Your task to perform on an android device: View the shopping cart on target. Image 0: 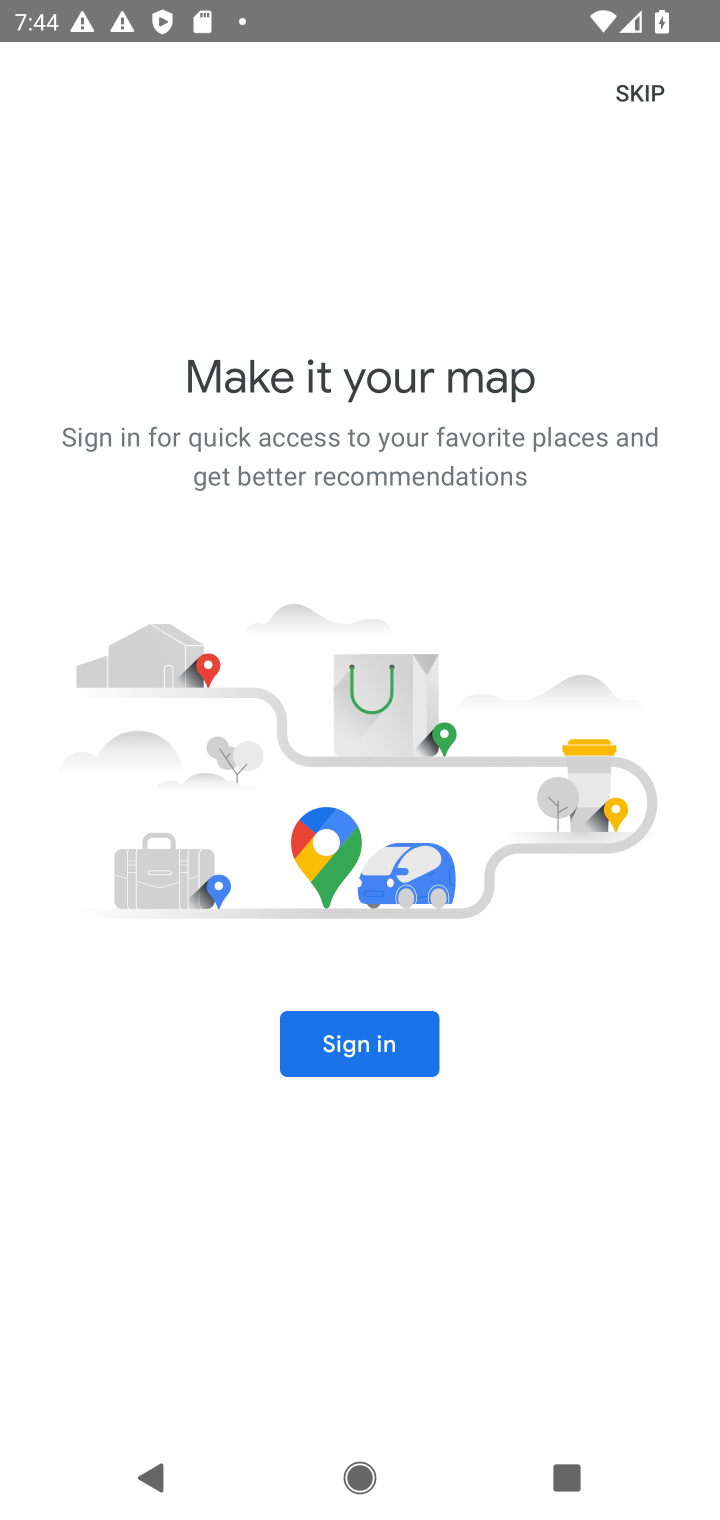
Step 0: press home button
Your task to perform on an android device: View the shopping cart on target. Image 1: 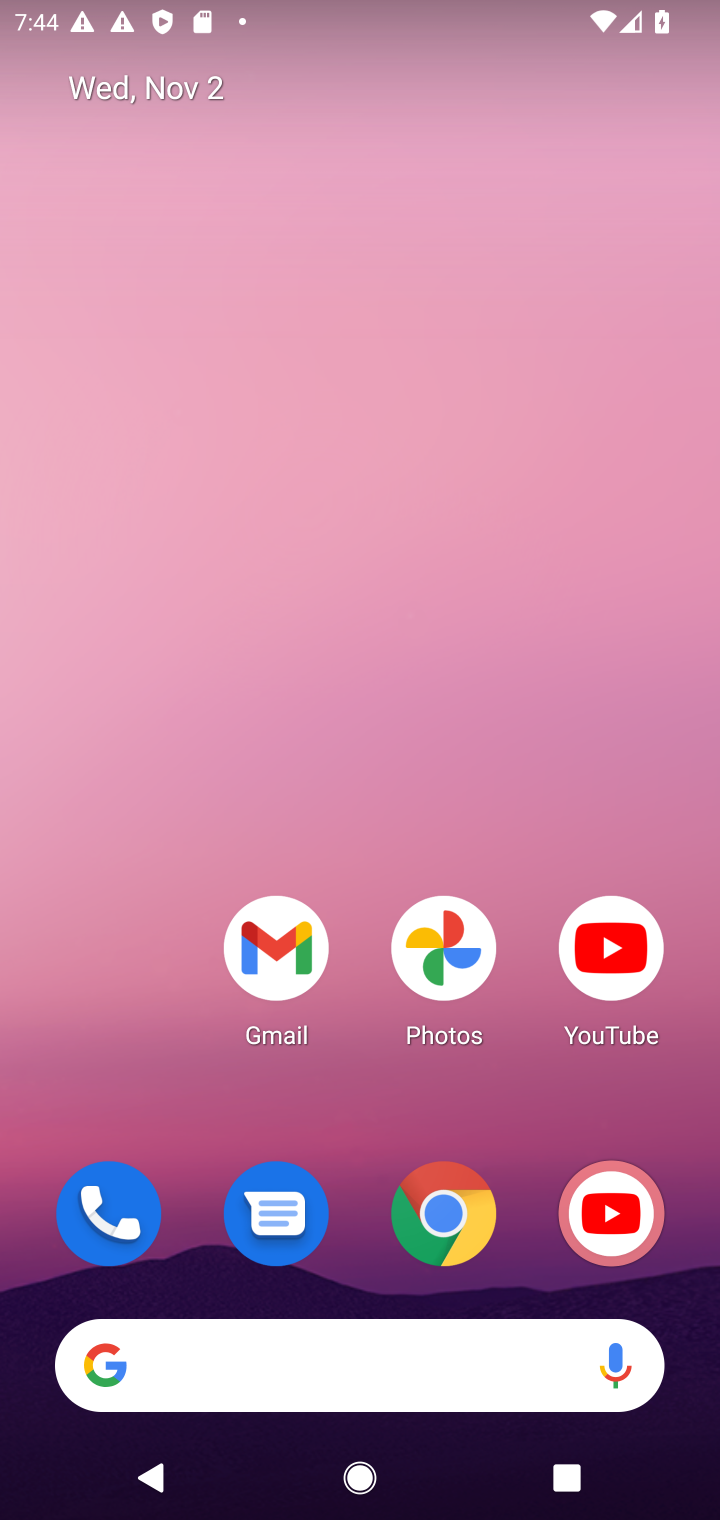
Step 1: click (473, 1251)
Your task to perform on an android device: View the shopping cart on target. Image 2: 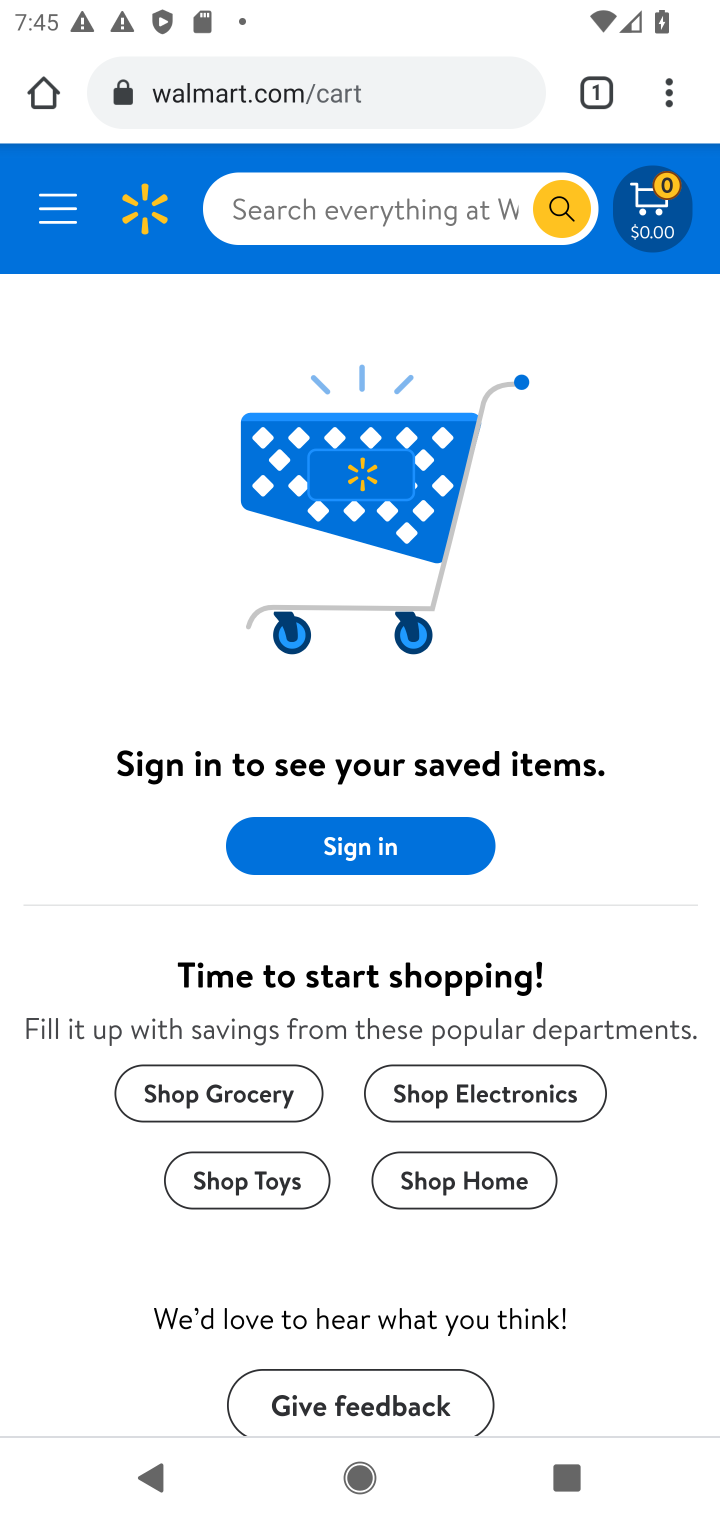
Step 2: click (234, 105)
Your task to perform on an android device: View the shopping cart on target. Image 3: 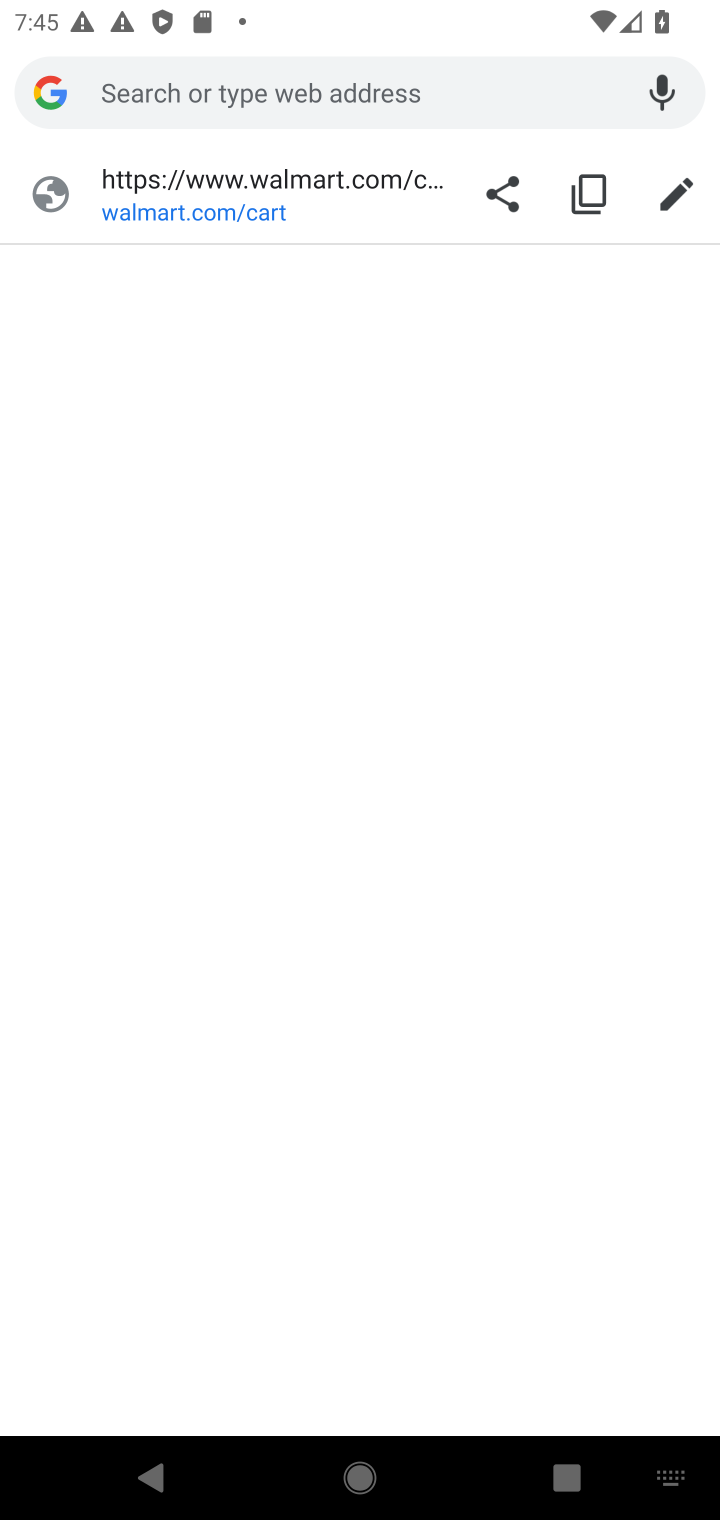
Step 3: type "target.com"
Your task to perform on an android device: View the shopping cart on target. Image 4: 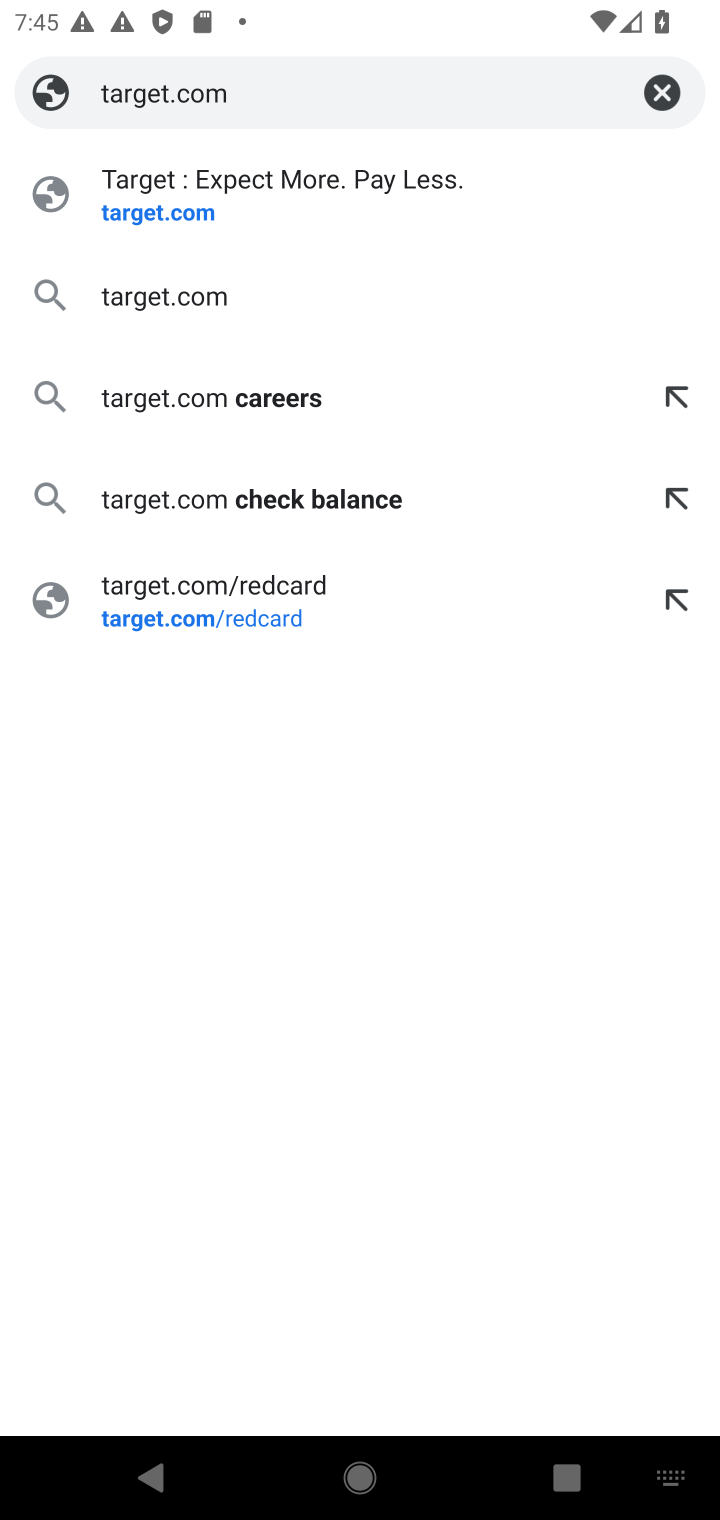
Step 4: click (178, 224)
Your task to perform on an android device: View the shopping cart on target. Image 5: 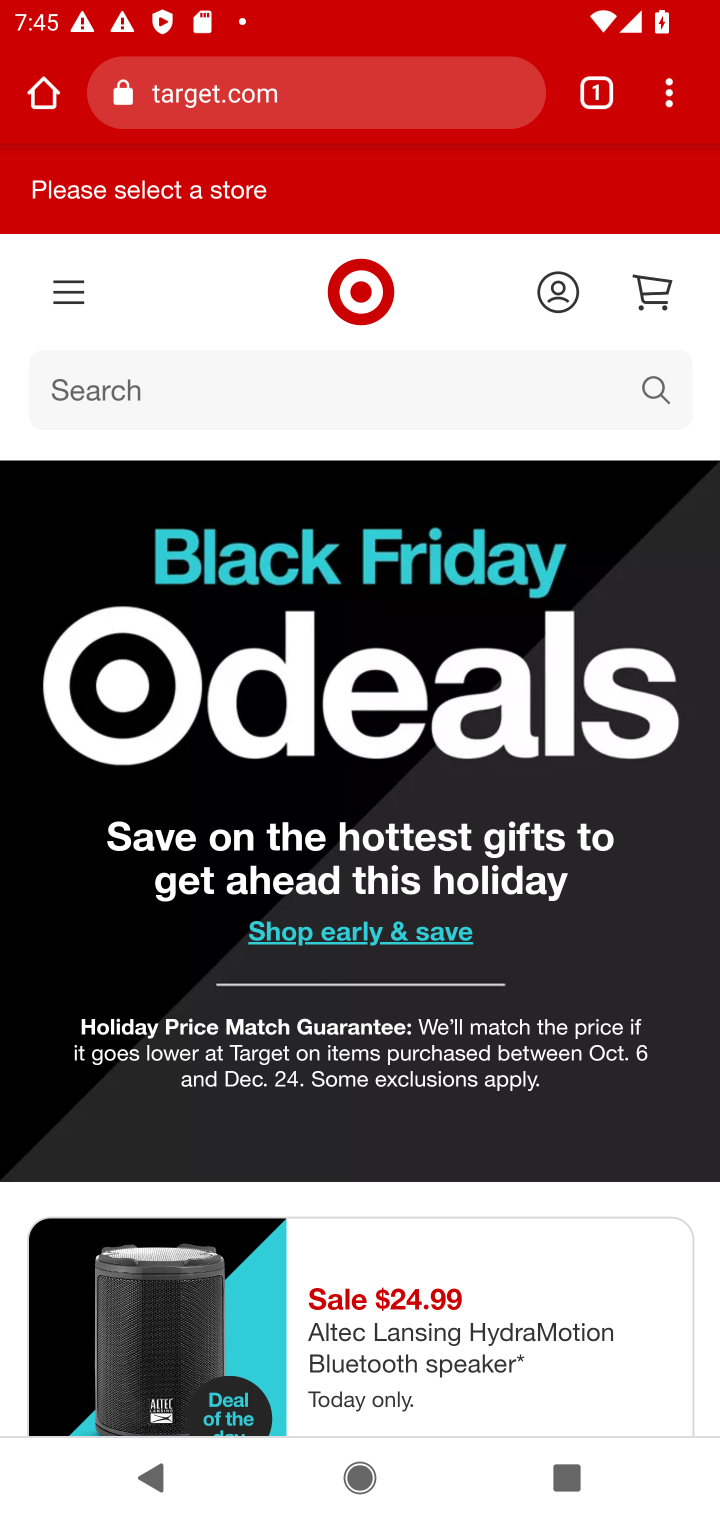
Step 5: click (658, 289)
Your task to perform on an android device: View the shopping cart on target. Image 6: 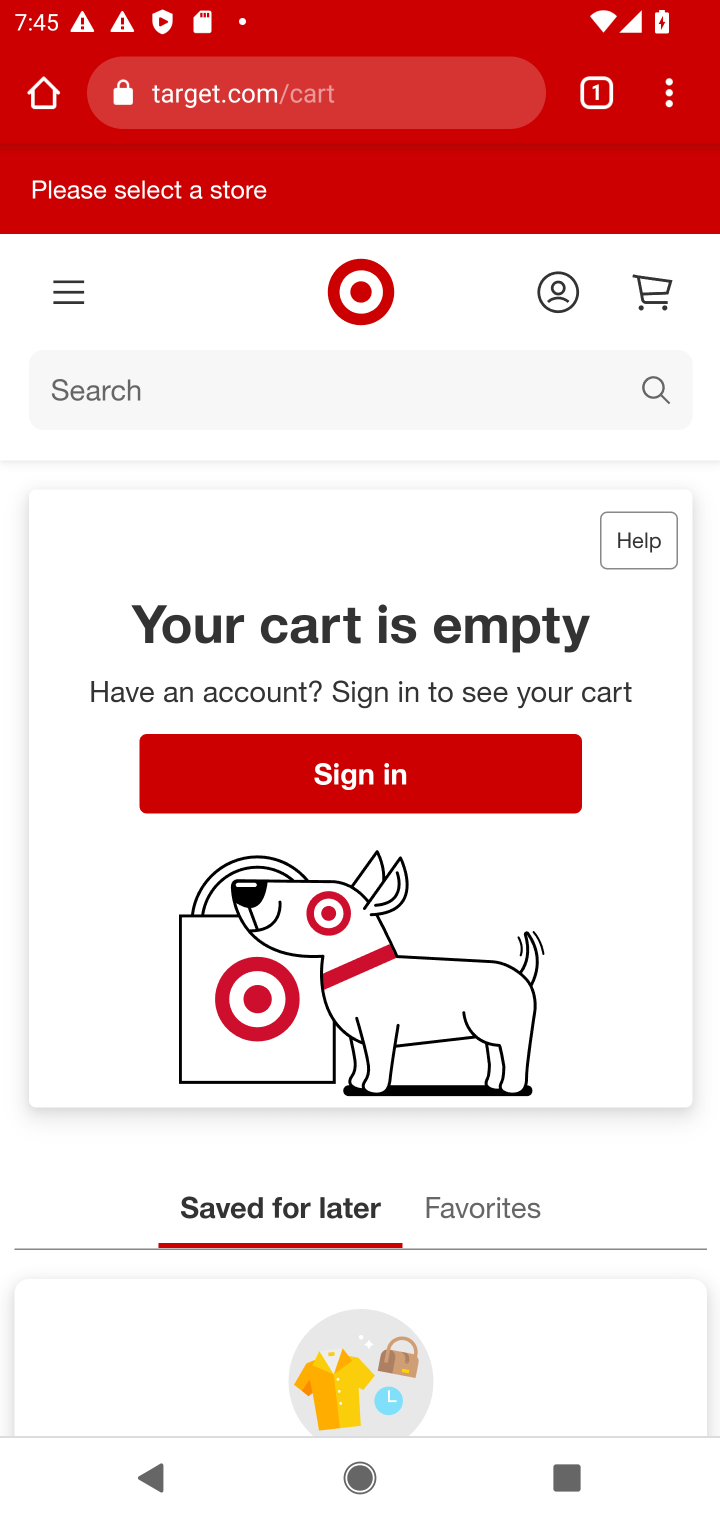
Step 6: task complete